Your task to perform on an android device: Open settings Image 0: 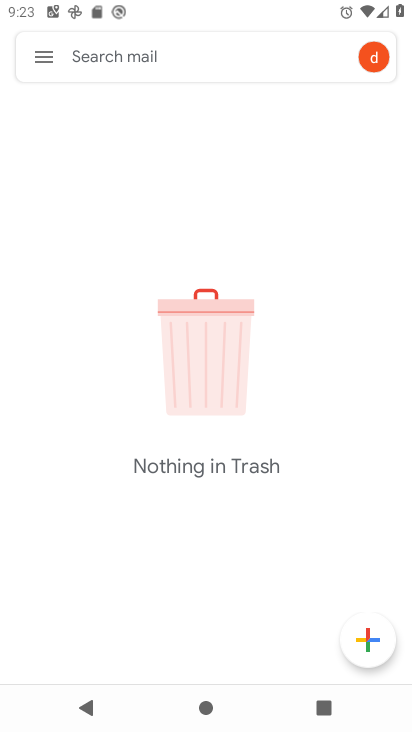
Step 0: press home button
Your task to perform on an android device: Open settings Image 1: 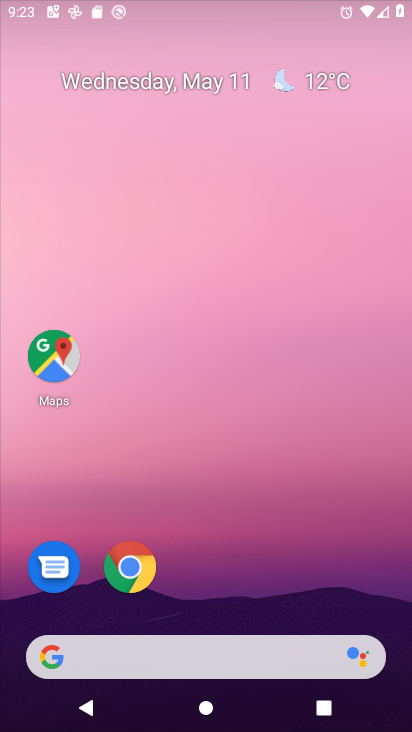
Step 1: drag from (258, 588) to (162, 79)
Your task to perform on an android device: Open settings Image 2: 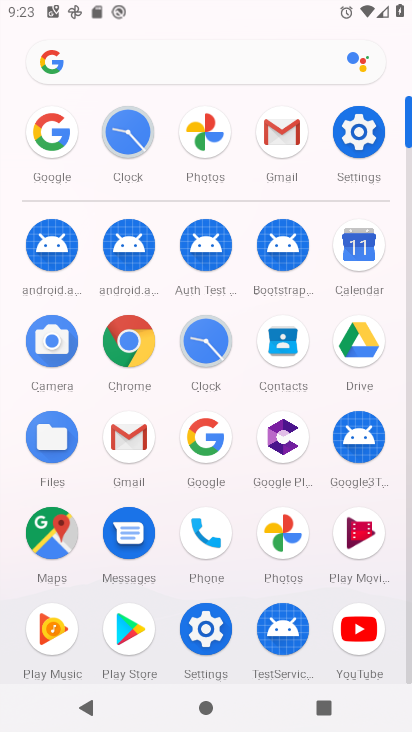
Step 2: click (364, 130)
Your task to perform on an android device: Open settings Image 3: 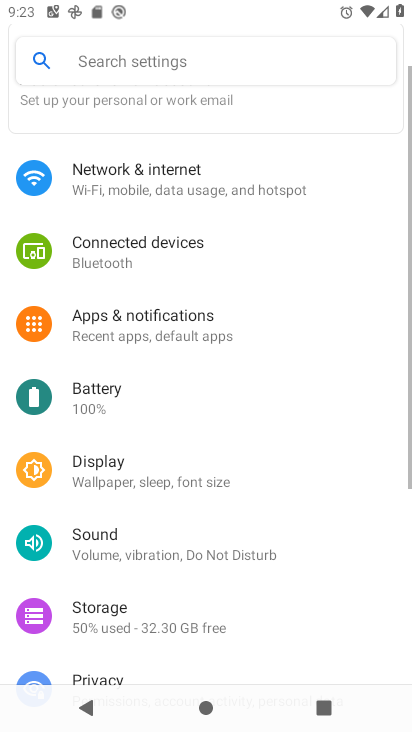
Step 3: task complete